Your task to perform on an android device: turn on sleep mode Image 0: 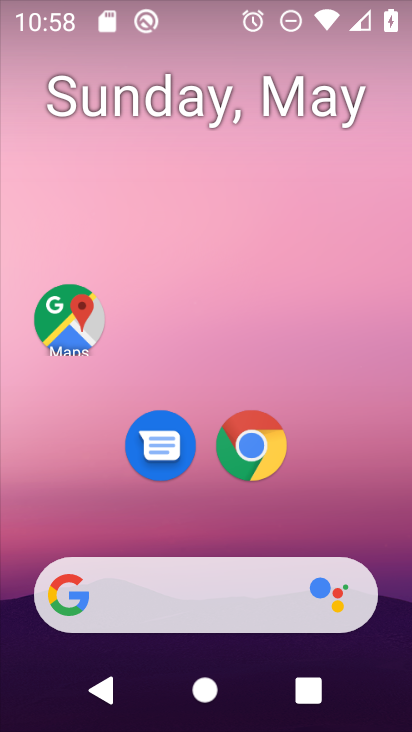
Step 0: drag from (201, 554) to (215, 5)
Your task to perform on an android device: turn on sleep mode Image 1: 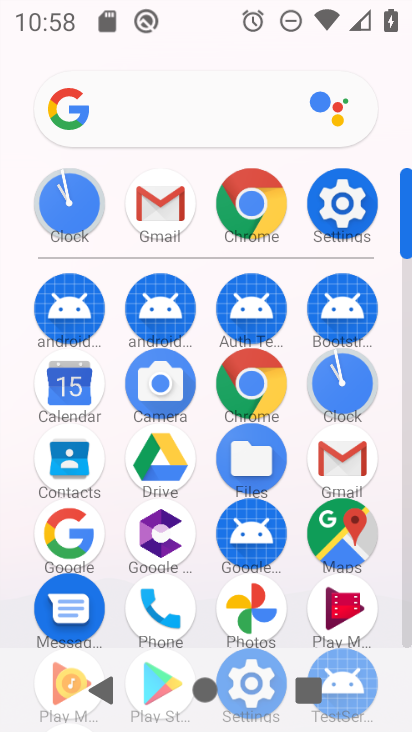
Step 1: click (330, 201)
Your task to perform on an android device: turn on sleep mode Image 2: 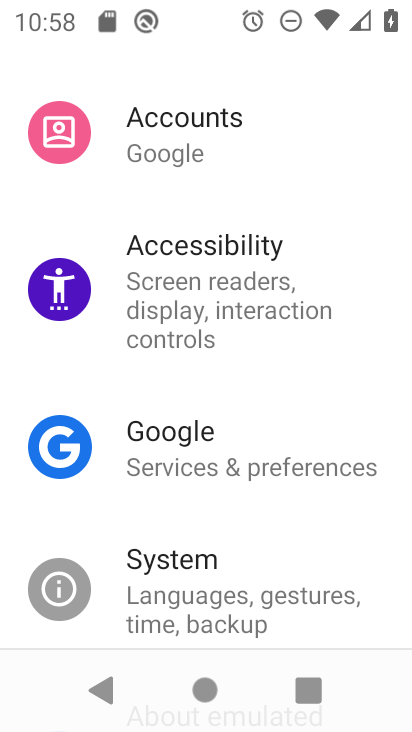
Step 2: drag from (222, 298) to (297, 695)
Your task to perform on an android device: turn on sleep mode Image 3: 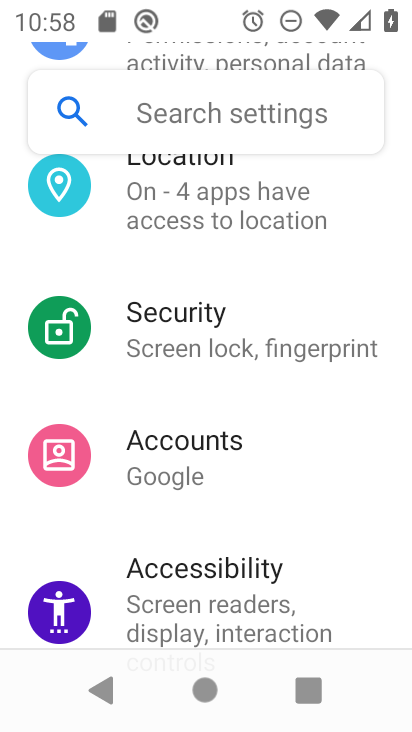
Step 3: drag from (237, 311) to (284, 626)
Your task to perform on an android device: turn on sleep mode Image 4: 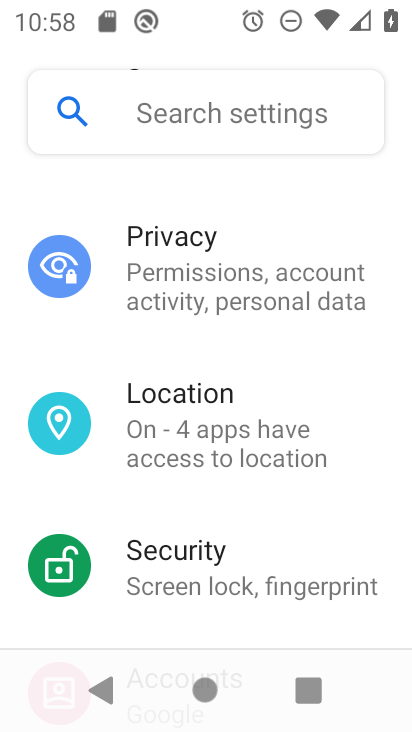
Step 4: drag from (148, 280) to (205, 685)
Your task to perform on an android device: turn on sleep mode Image 5: 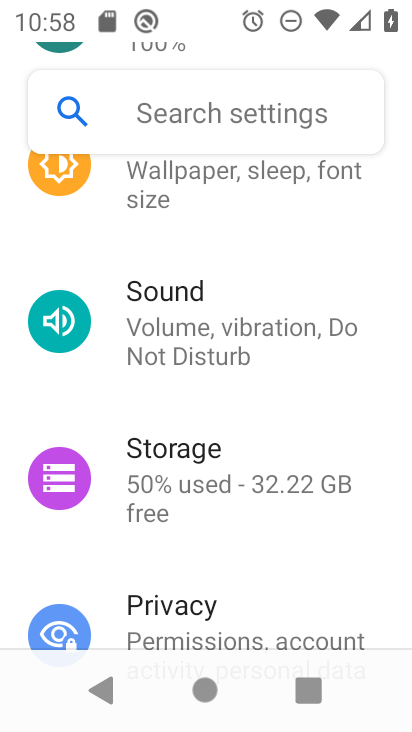
Step 5: drag from (206, 309) to (204, 557)
Your task to perform on an android device: turn on sleep mode Image 6: 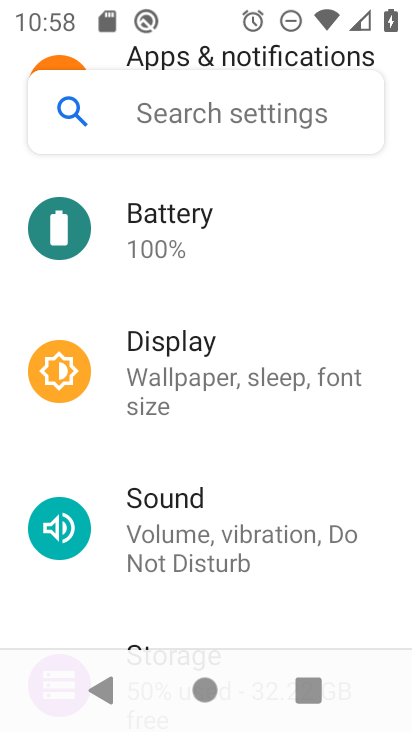
Step 6: click (206, 366)
Your task to perform on an android device: turn on sleep mode Image 7: 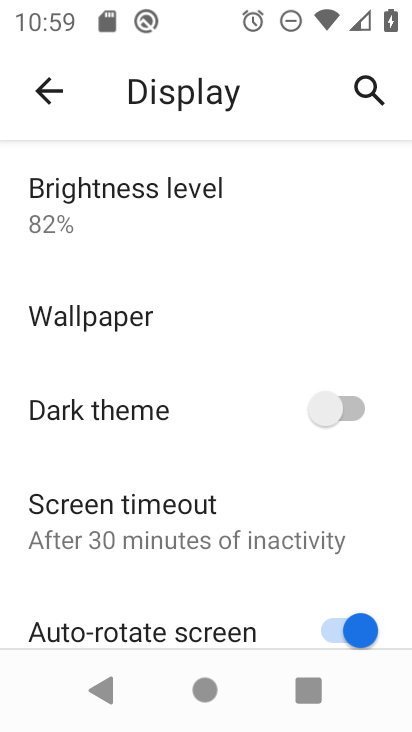
Step 7: drag from (149, 530) to (180, 176)
Your task to perform on an android device: turn on sleep mode Image 8: 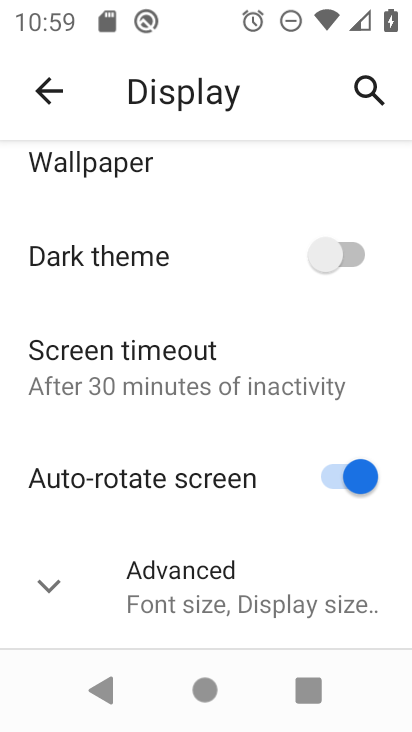
Step 8: drag from (152, 537) to (136, 151)
Your task to perform on an android device: turn on sleep mode Image 9: 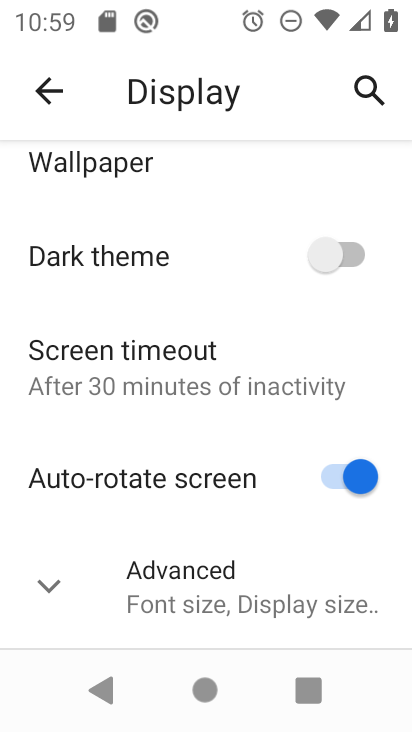
Step 9: click (160, 567)
Your task to perform on an android device: turn on sleep mode Image 10: 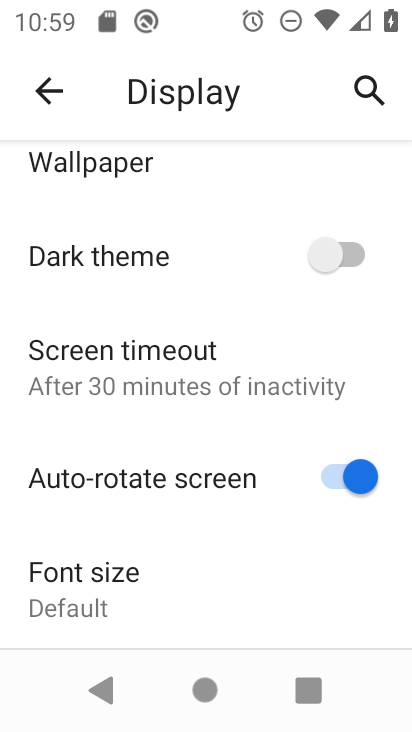
Step 10: click (126, 567)
Your task to perform on an android device: turn on sleep mode Image 11: 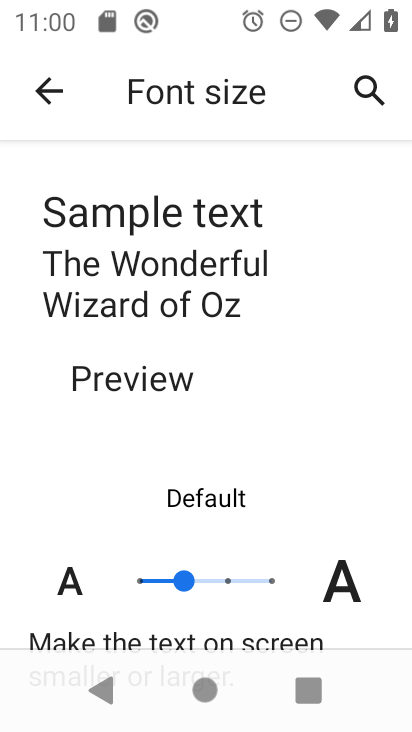
Step 11: task complete